Your task to perform on an android device: Open the phone app and click the voicemail tab. Image 0: 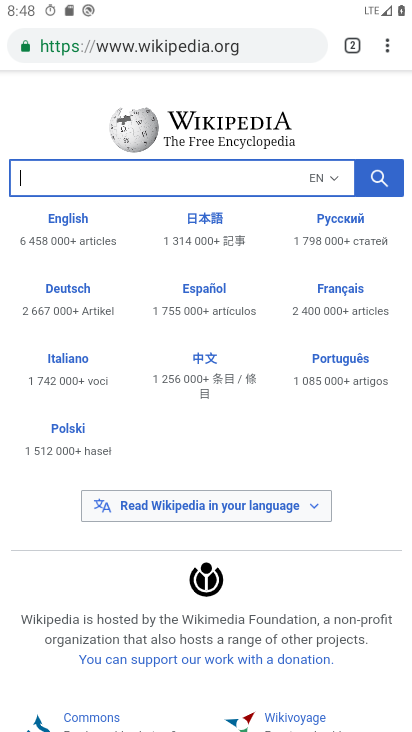
Step 0: press home button
Your task to perform on an android device: Open the phone app and click the voicemail tab. Image 1: 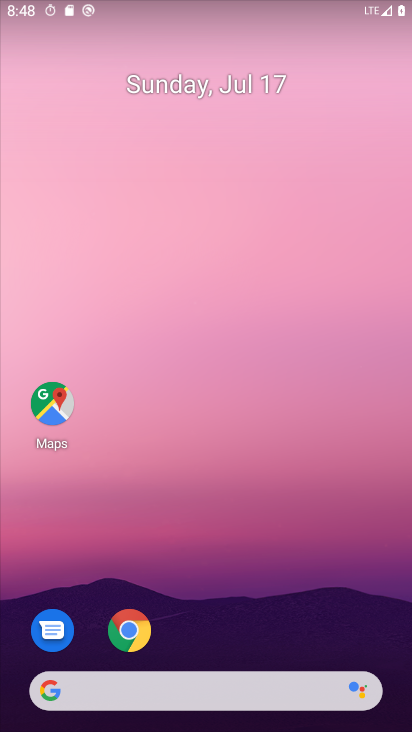
Step 1: drag from (218, 639) to (226, 41)
Your task to perform on an android device: Open the phone app and click the voicemail tab. Image 2: 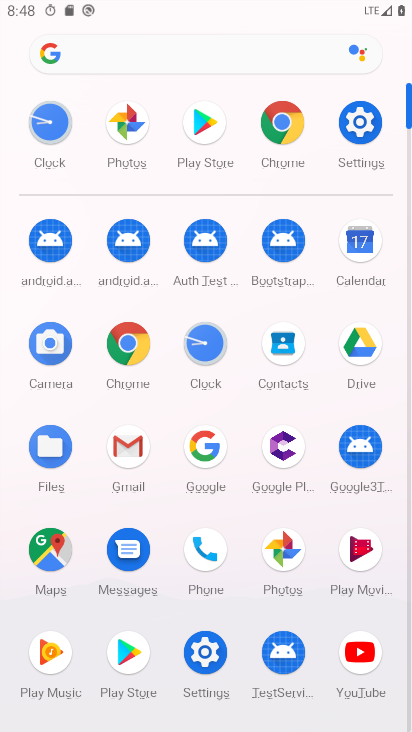
Step 2: click (204, 559)
Your task to perform on an android device: Open the phone app and click the voicemail tab. Image 3: 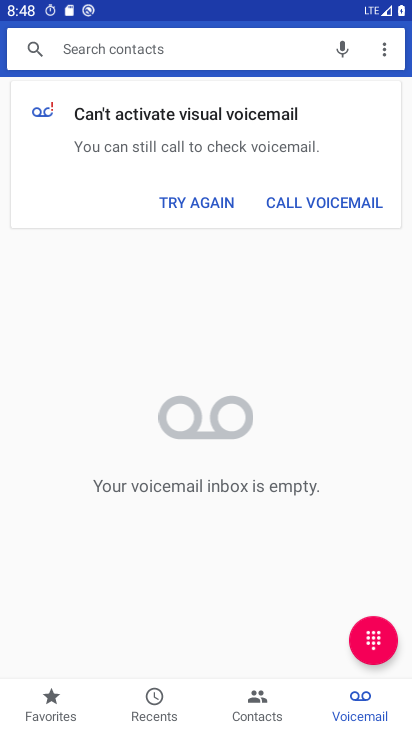
Step 3: task complete